Your task to perform on an android device: Go to internet settings Image 0: 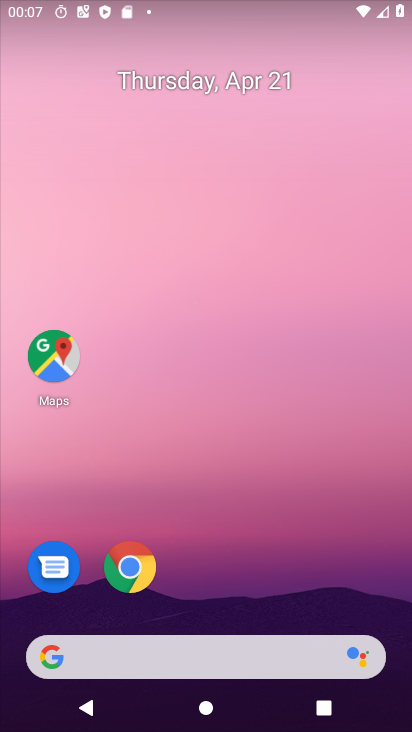
Step 0: drag from (208, 220) to (231, 139)
Your task to perform on an android device: Go to internet settings Image 1: 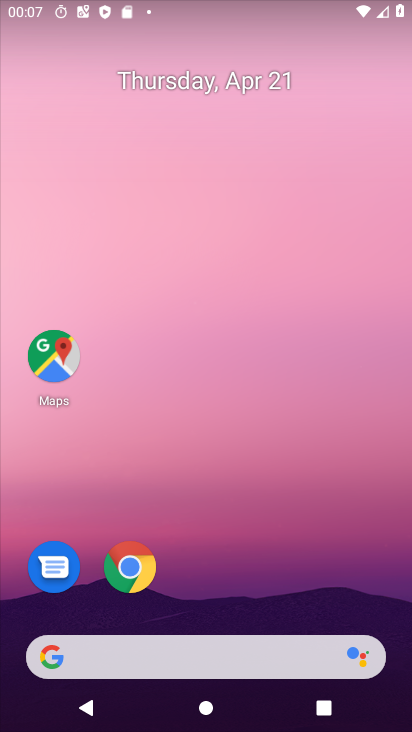
Step 1: drag from (256, 547) to (255, 232)
Your task to perform on an android device: Go to internet settings Image 2: 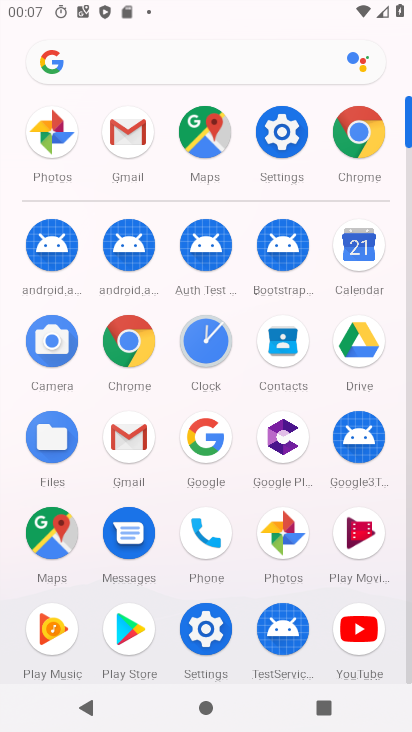
Step 2: drag from (244, 551) to (264, 281)
Your task to perform on an android device: Go to internet settings Image 3: 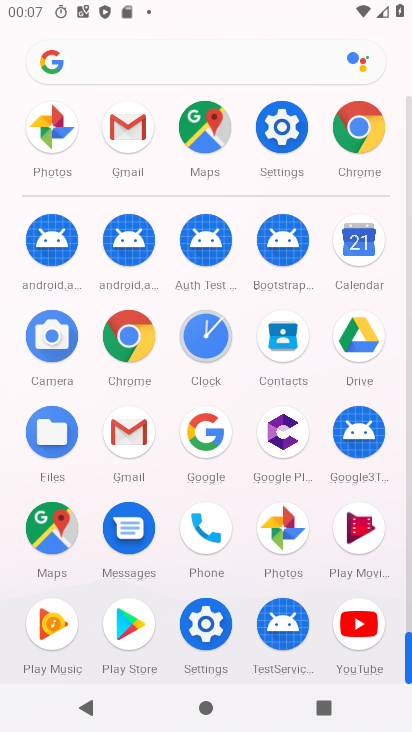
Step 3: click (211, 620)
Your task to perform on an android device: Go to internet settings Image 4: 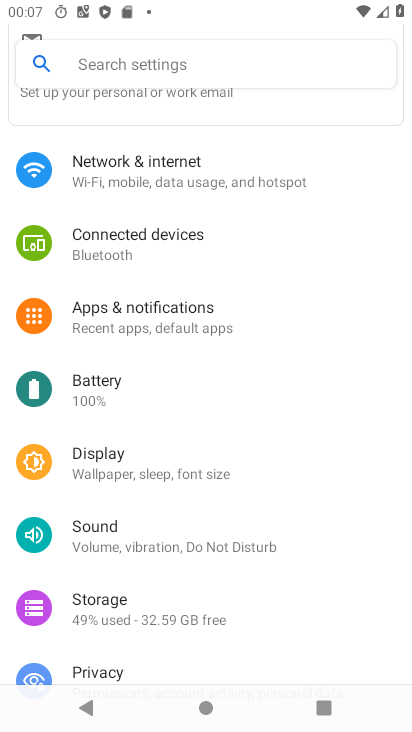
Step 4: click (174, 173)
Your task to perform on an android device: Go to internet settings Image 5: 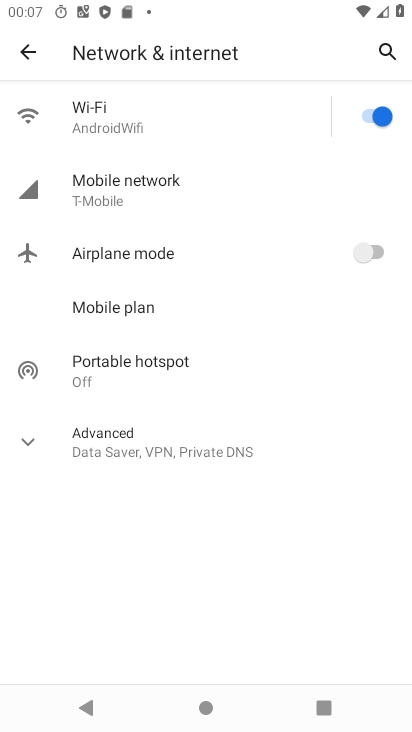
Step 5: task complete